Your task to perform on an android device: Open location settings Image 0: 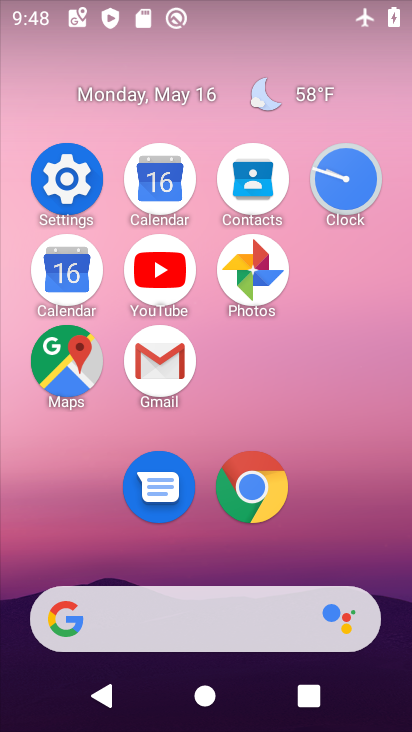
Step 0: click (78, 186)
Your task to perform on an android device: Open location settings Image 1: 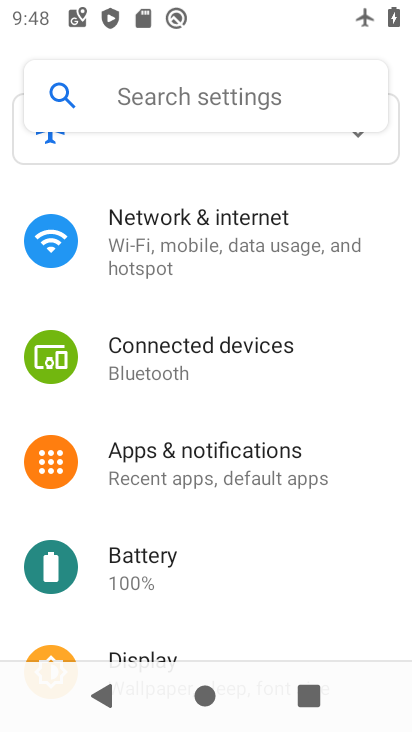
Step 1: drag from (188, 577) to (245, 173)
Your task to perform on an android device: Open location settings Image 2: 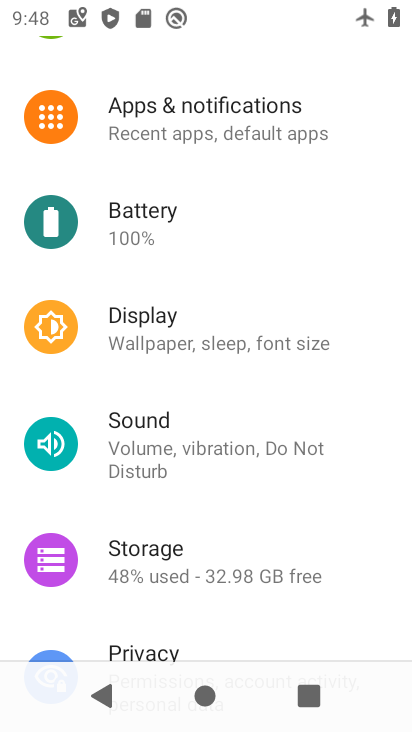
Step 2: drag from (173, 525) to (239, 161)
Your task to perform on an android device: Open location settings Image 3: 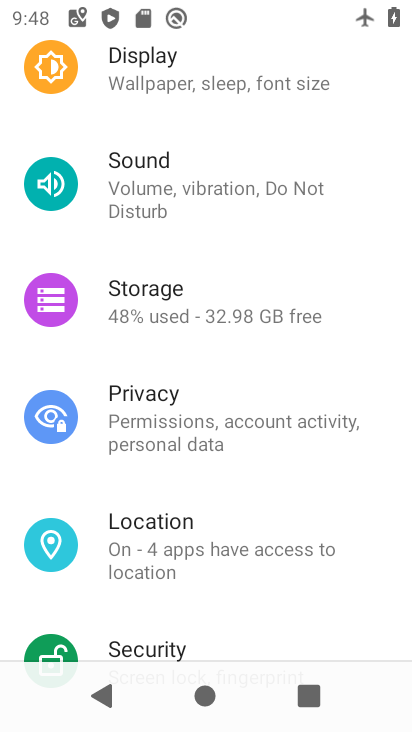
Step 3: click (223, 554)
Your task to perform on an android device: Open location settings Image 4: 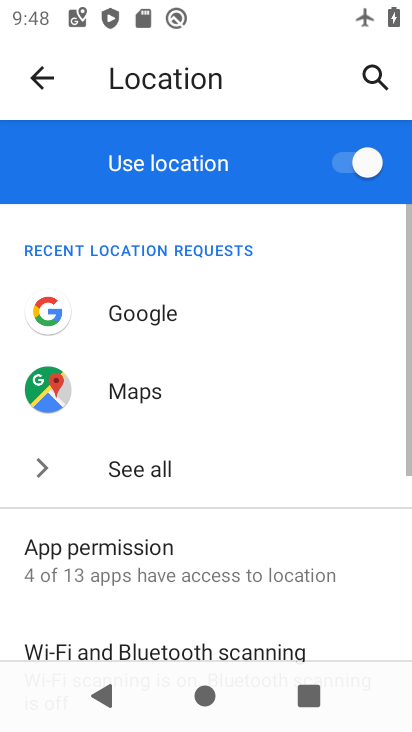
Step 4: task complete